Your task to perform on an android device: toggle priority inbox in the gmail app Image 0: 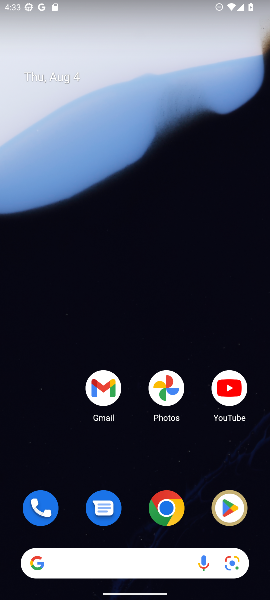
Step 0: drag from (132, 522) to (131, 225)
Your task to perform on an android device: toggle priority inbox in the gmail app Image 1: 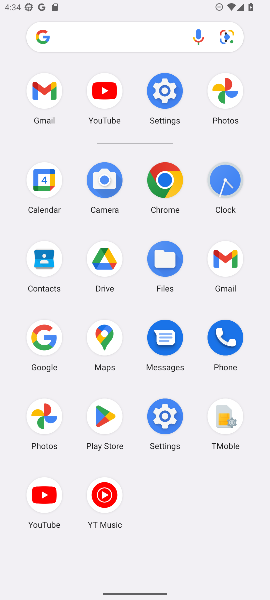
Step 1: click (215, 255)
Your task to perform on an android device: toggle priority inbox in the gmail app Image 2: 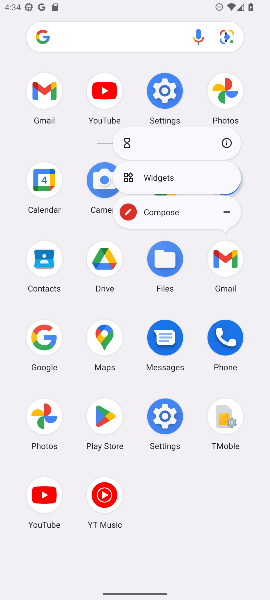
Step 2: click (221, 254)
Your task to perform on an android device: toggle priority inbox in the gmail app Image 3: 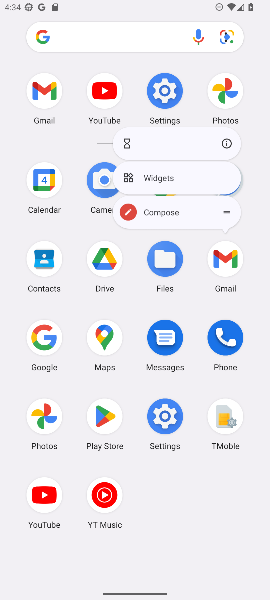
Step 3: click (220, 254)
Your task to perform on an android device: toggle priority inbox in the gmail app Image 4: 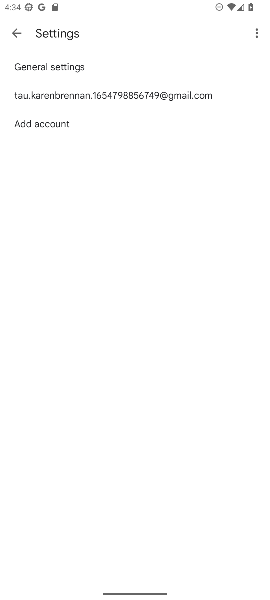
Step 4: click (11, 33)
Your task to perform on an android device: toggle priority inbox in the gmail app Image 5: 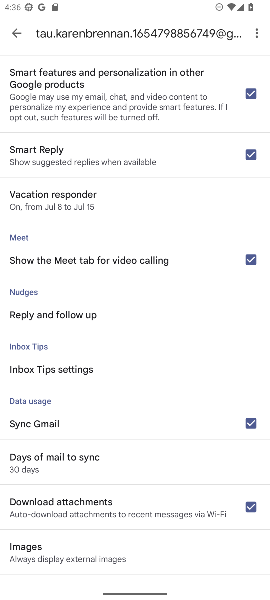
Step 5: drag from (173, 275) to (203, 95)
Your task to perform on an android device: toggle priority inbox in the gmail app Image 6: 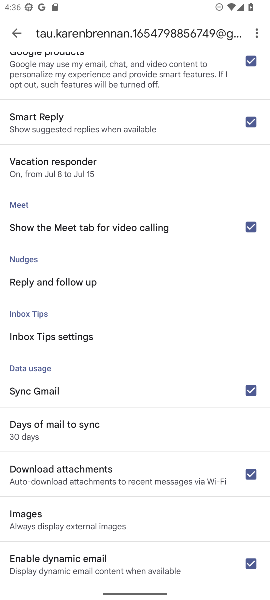
Step 6: click (7, 23)
Your task to perform on an android device: toggle priority inbox in the gmail app Image 7: 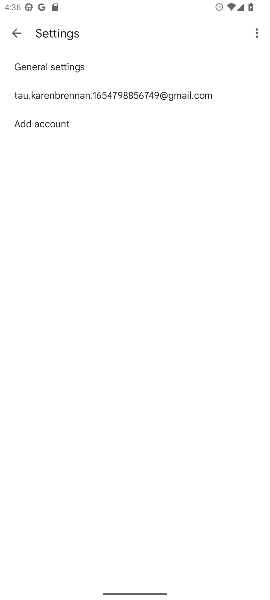
Step 7: click (87, 87)
Your task to perform on an android device: toggle priority inbox in the gmail app Image 8: 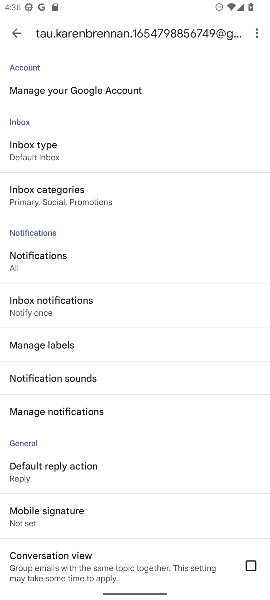
Step 8: click (38, 152)
Your task to perform on an android device: toggle priority inbox in the gmail app Image 9: 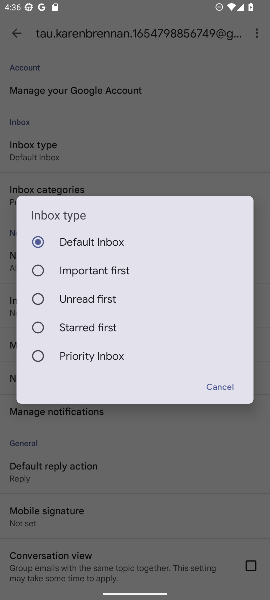
Step 9: click (70, 349)
Your task to perform on an android device: toggle priority inbox in the gmail app Image 10: 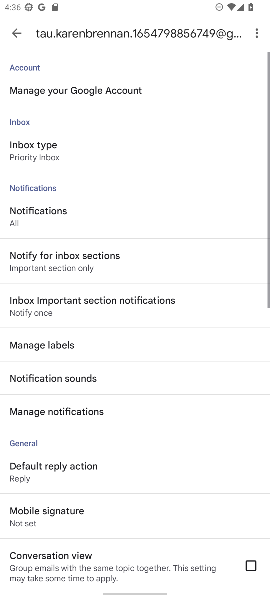
Step 10: task complete